Your task to perform on an android device: turn off smart reply in the gmail app Image 0: 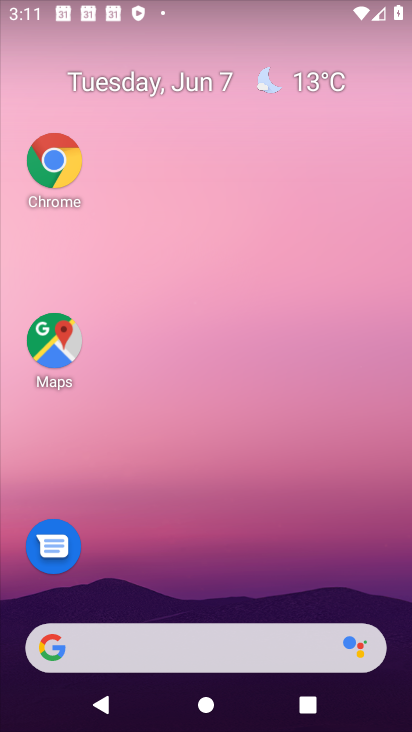
Step 0: drag from (142, 596) to (260, 90)
Your task to perform on an android device: turn off smart reply in the gmail app Image 1: 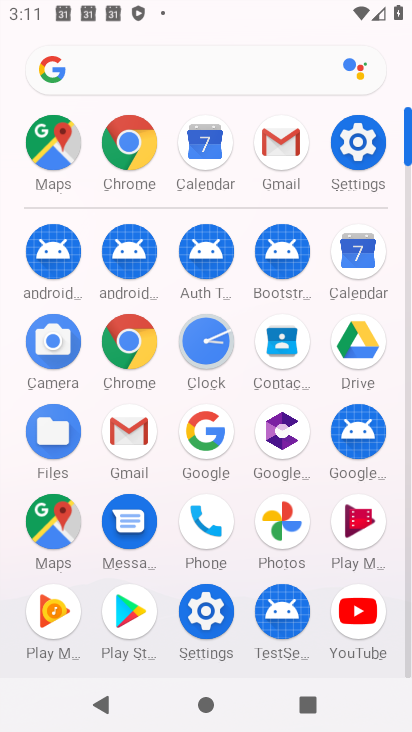
Step 1: click (118, 416)
Your task to perform on an android device: turn off smart reply in the gmail app Image 2: 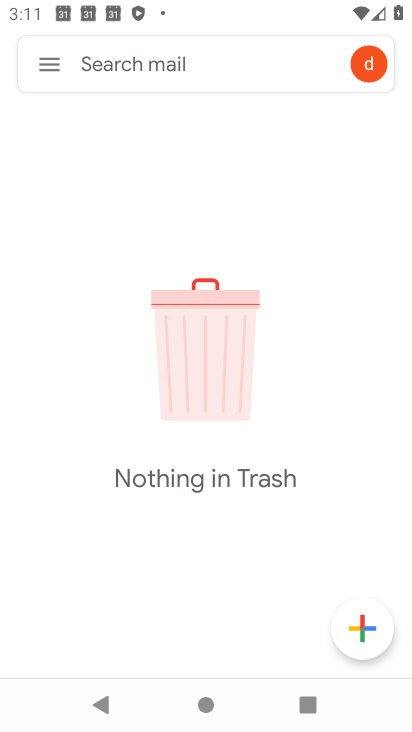
Step 2: click (42, 68)
Your task to perform on an android device: turn off smart reply in the gmail app Image 3: 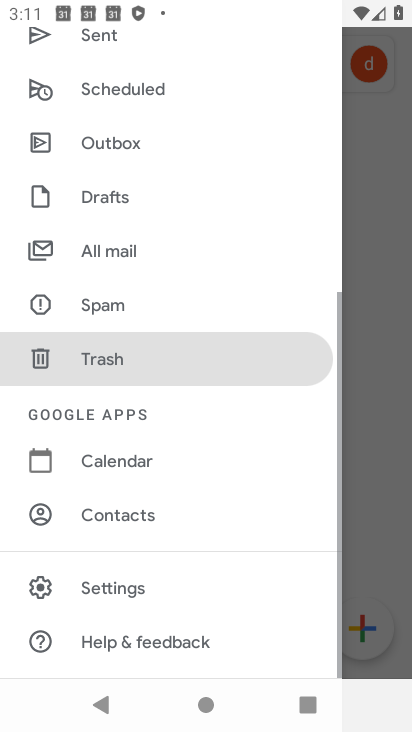
Step 3: drag from (101, 554) to (208, 11)
Your task to perform on an android device: turn off smart reply in the gmail app Image 4: 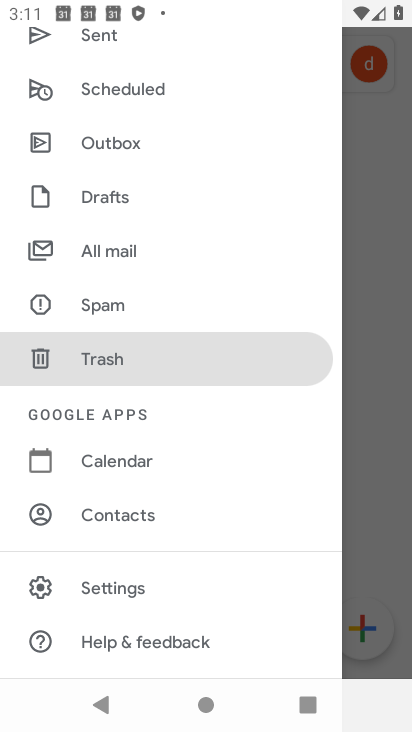
Step 4: click (98, 583)
Your task to perform on an android device: turn off smart reply in the gmail app Image 5: 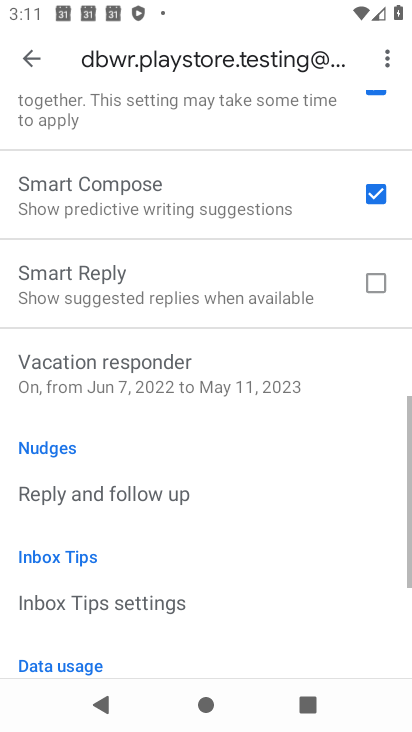
Step 5: task complete